Your task to perform on an android device: Search for the new nike shoes on Target Image 0: 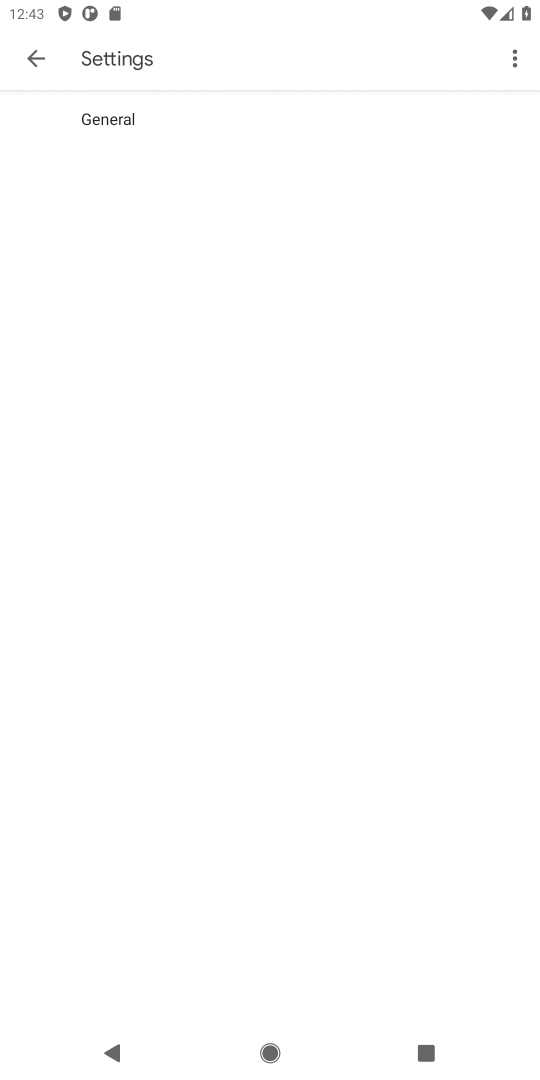
Step 0: press home button
Your task to perform on an android device: Search for the new nike shoes on Target Image 1: 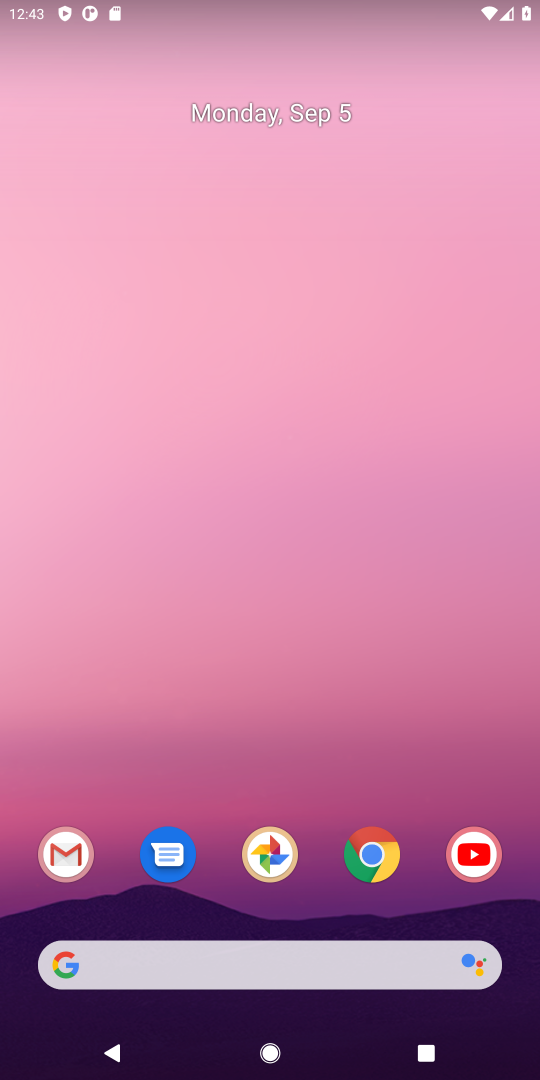
Step 1: click (362, 851)
Your task to perform on an android device: Search for the new nike shoes on Target Image 2: 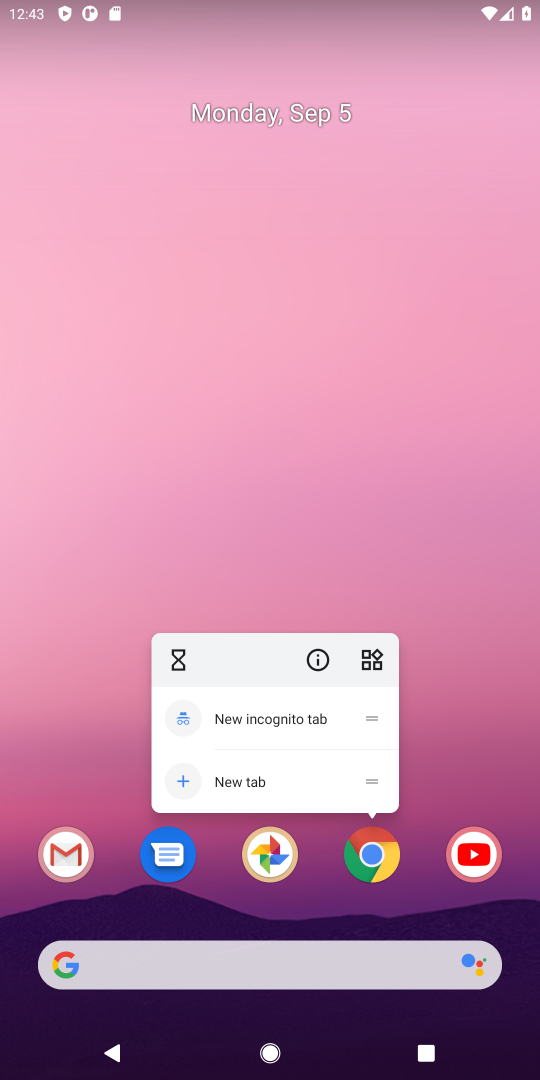
Step 2: click (362, 849)
Your task to perform on an android device: Search for the new nike shoes on Target Image 3: 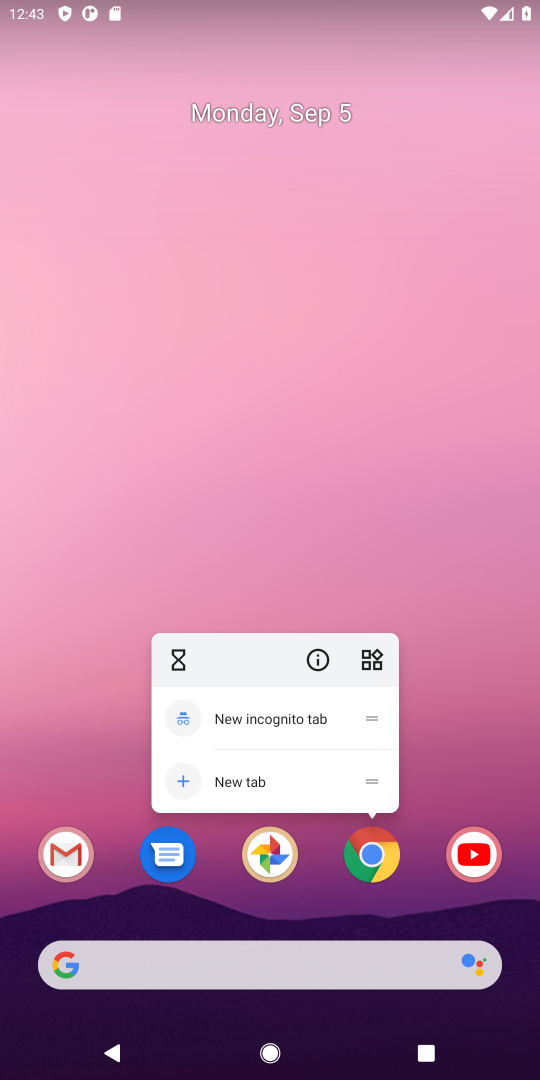
Step 3: click (365, 855)
Your task to perform on an android device: Search for the new nike shoes on Target Image 4: 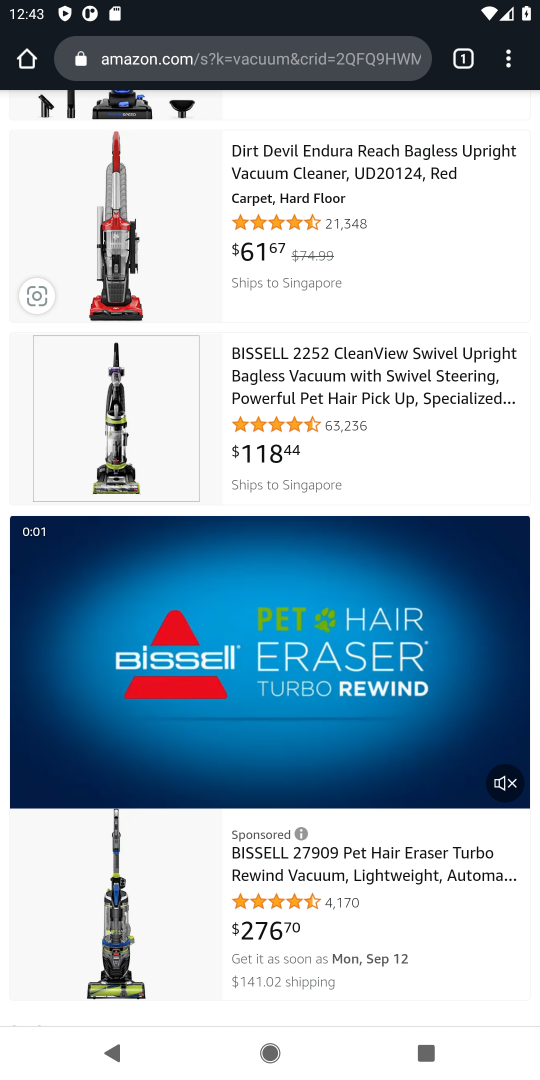
Step 4: click (375, 50)
Your task to perform on an android device: Search for the new nike shoes on Target Image 5: 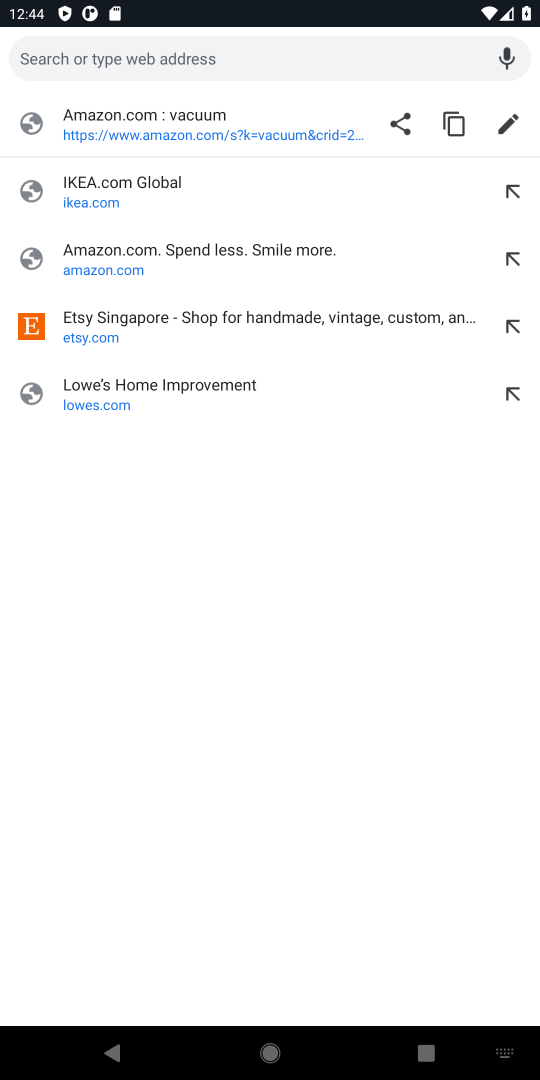
Step 5: type "Target"
Your task to perform on an android device: Search for the new nike shoes on Target Image 6: 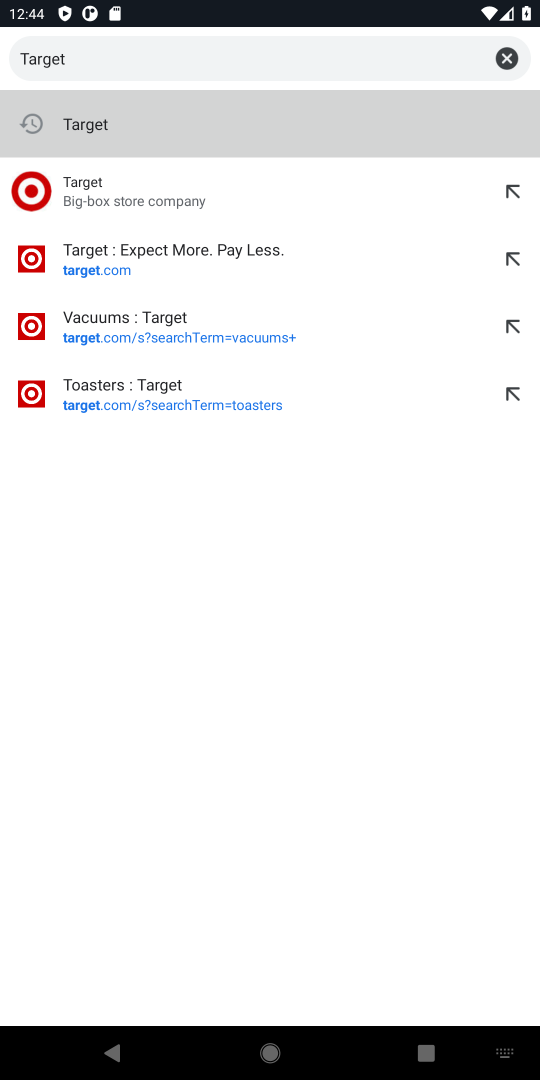
Step 6: press enter
Your task to perform on an android device: Search for the new nike shoes on Target Image 7: 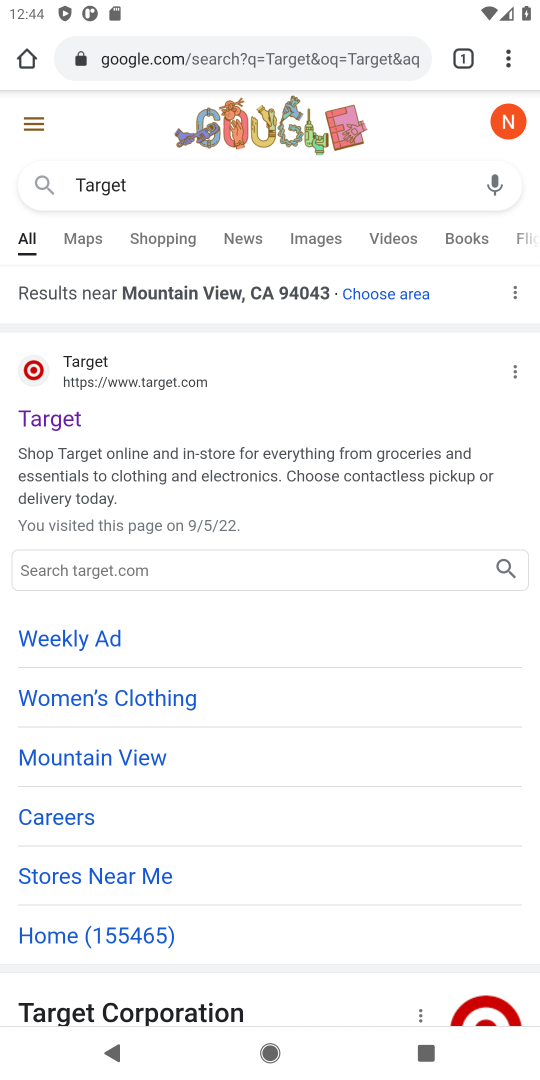
Step 7: click (31, 417)
Your task to perform on an android device: Search for the new nike shoes on Target Image 8: 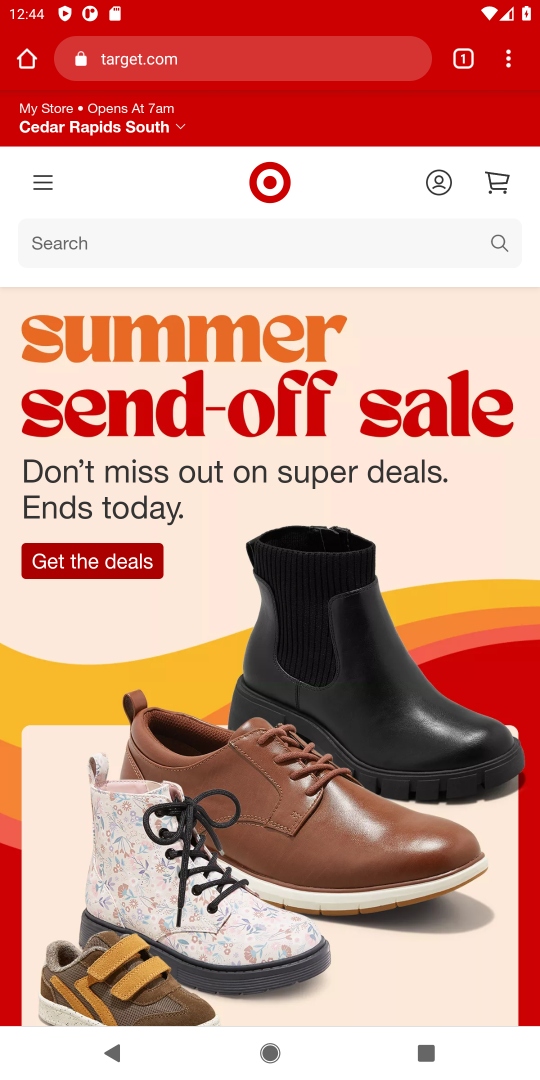
Step 8: click (92, 236)
Your task to perform on an android device: Search for the new nike shoes on Target Image 9: 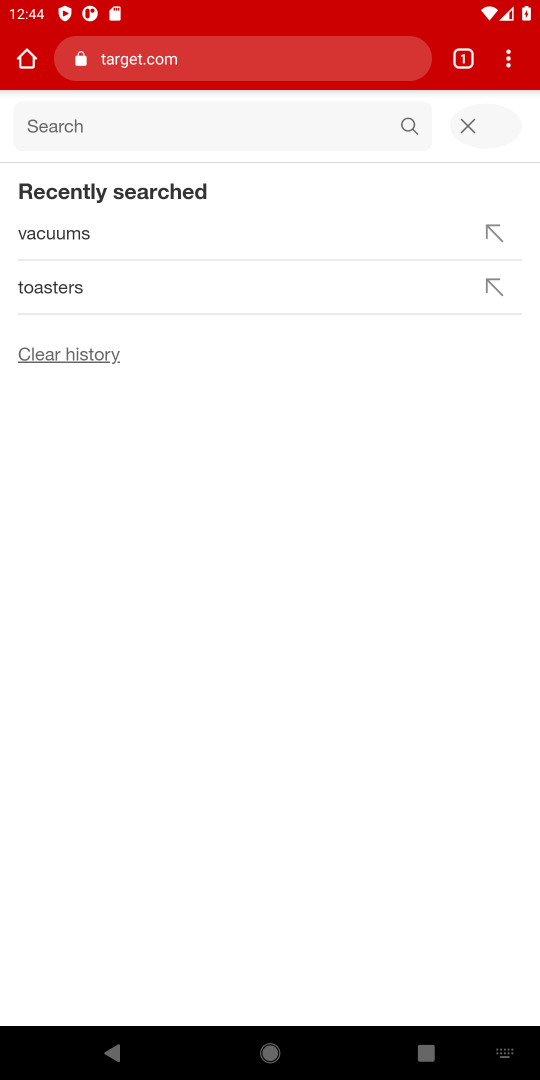
Step 9: press enter
Your task to perform on an android device: Search for the new nike shoes on Target Image 10: 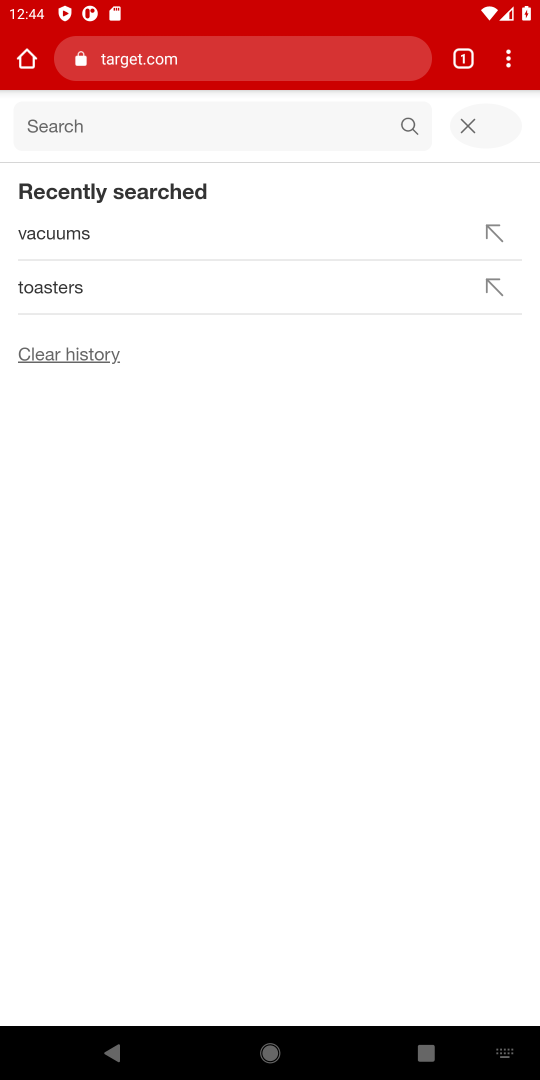
Step 10: type "nike shoes"
Your task to perform on an android device: Search for the new nike shoes on Target Image 11: 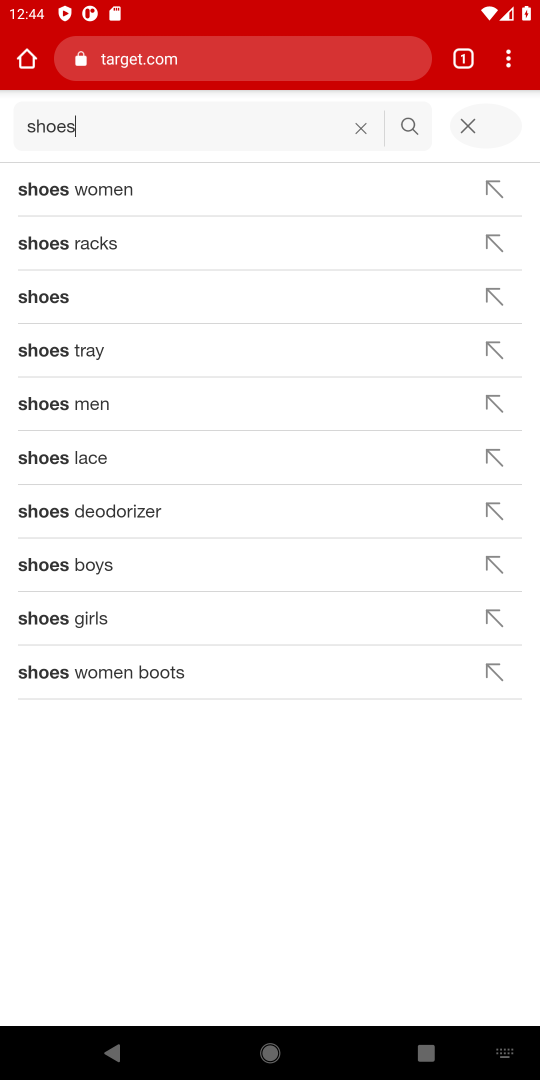
Step 11: click (360, 126)
Your task to perform on an android device: Search for the new nike shoes on Target Image 12: 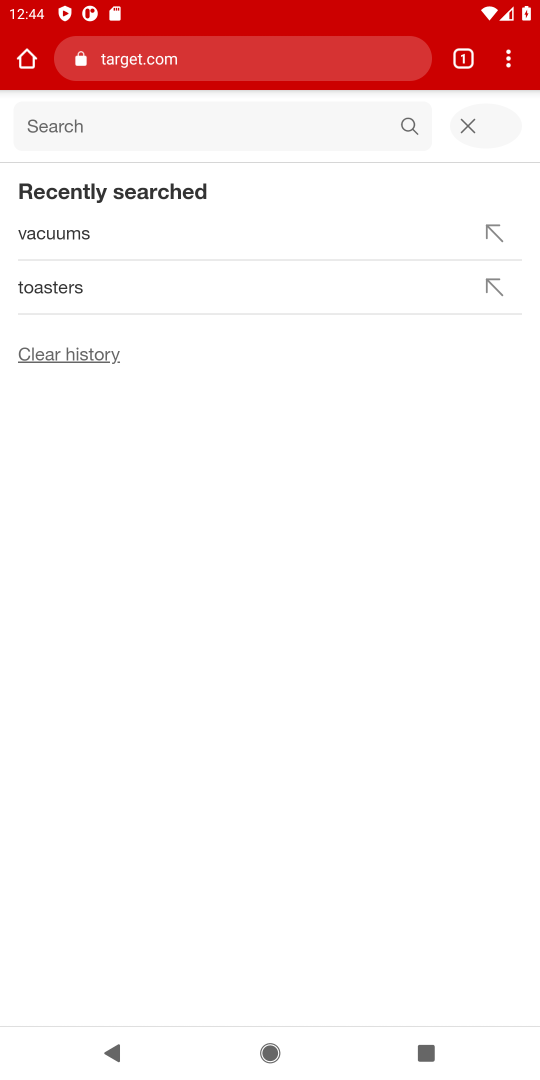
Step 12: type "nike shoes"
Your task to perform on an android device: Search for the new nike shoes on Target Image 13: 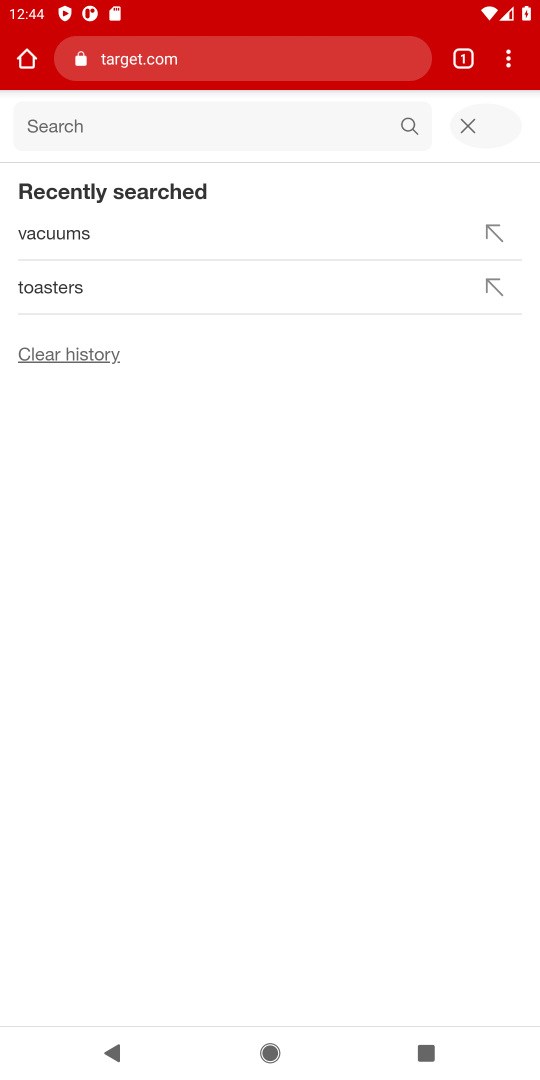
Step 13: press enter
Your task to perform on an android device: Search for the new nike shoes on Target Image 14: 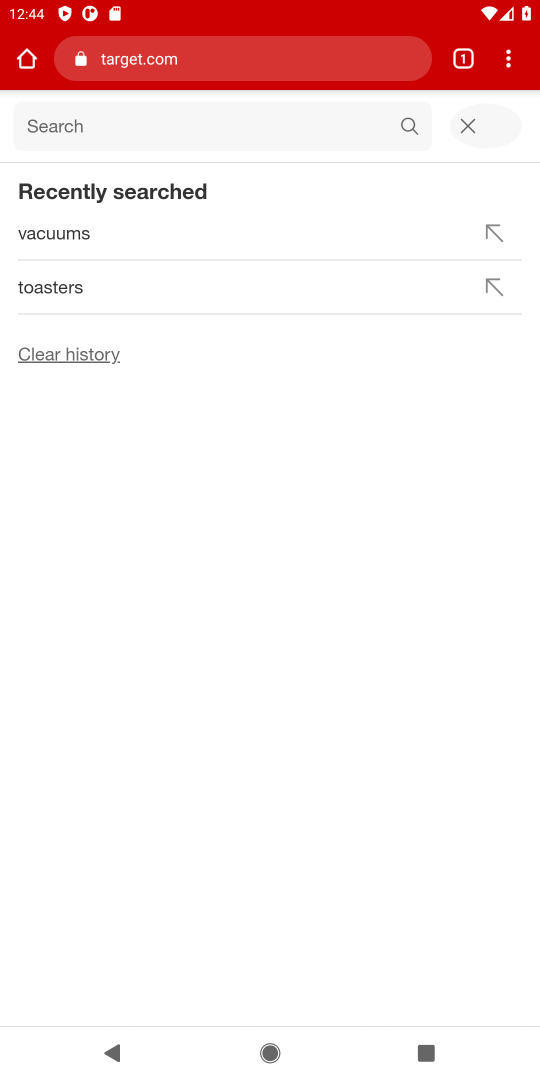
Step 14: click (34, 132)
Your task to perform on an android device: Search for the new nike shoes on Target Image 15: 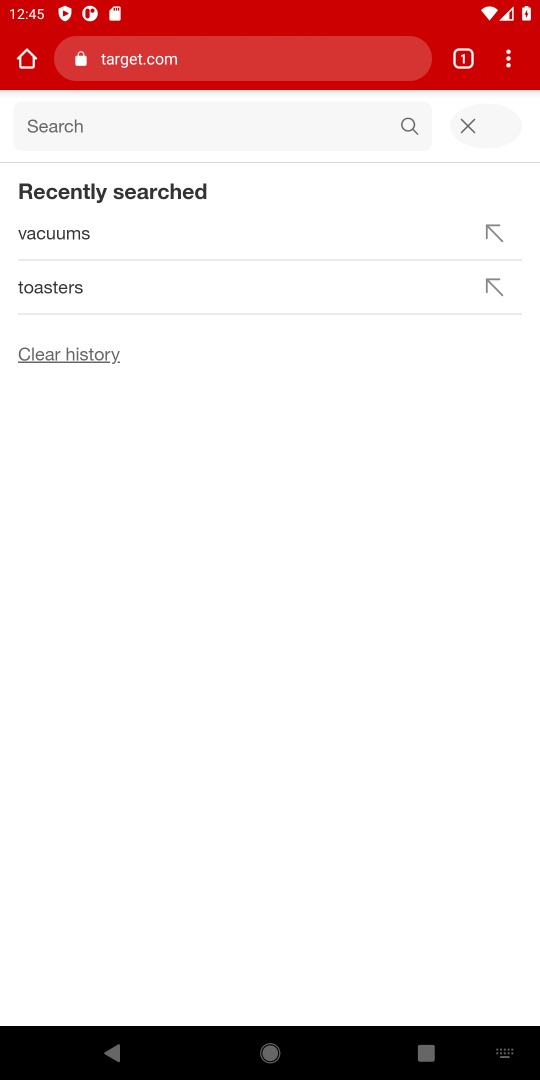
Step 15: type "nike shoes"
Your task to perform on an android device: Search for the new nike shoes on Target Image 16: 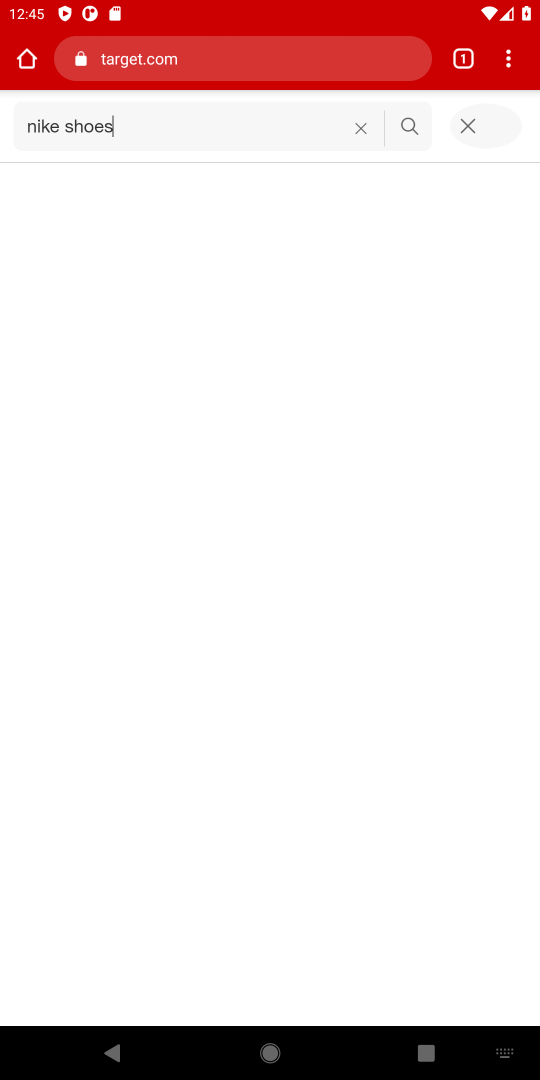
Step 16: press enter
Your task to perform on an android device: Search for the new nike shoes on Target Image 17: 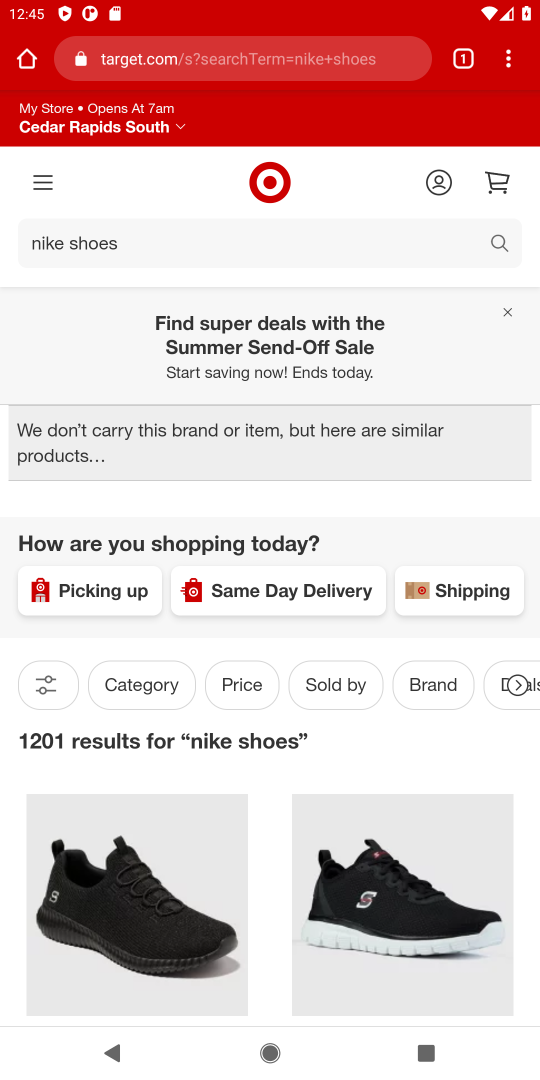
Step 17: task complete